Your task to perform on an android device: Go to display settings Image 0: 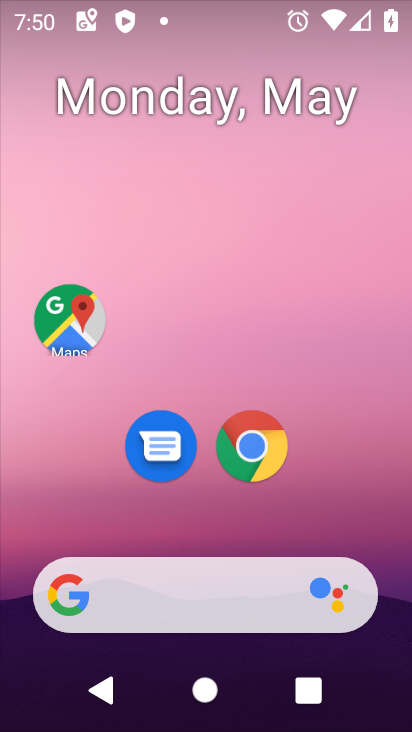
Step 0: drag from (333, 512) to (173, 104)
Your task to perform on an android device: Go to display settings Image 1: 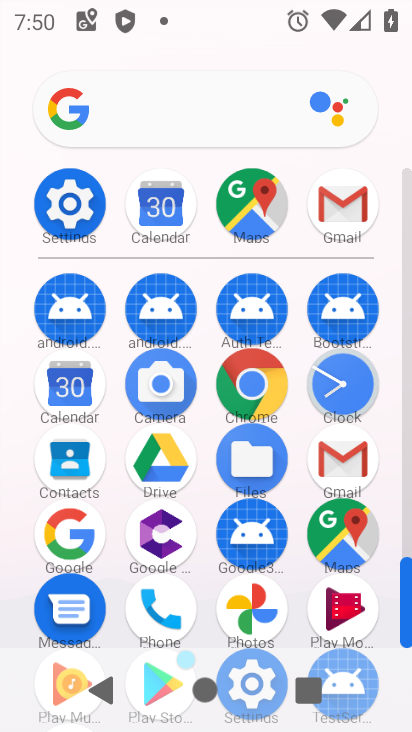
Step 1: click (67, 212)
Your task to perform on an android device: Go to display settings Image 2: 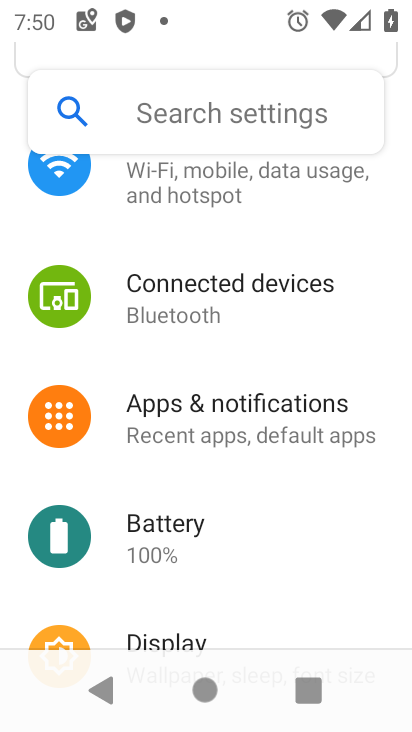
Step 2: drag from (208, 566) to (200, 350)
Your task to perform on an android device: Go to display settings Image 3: 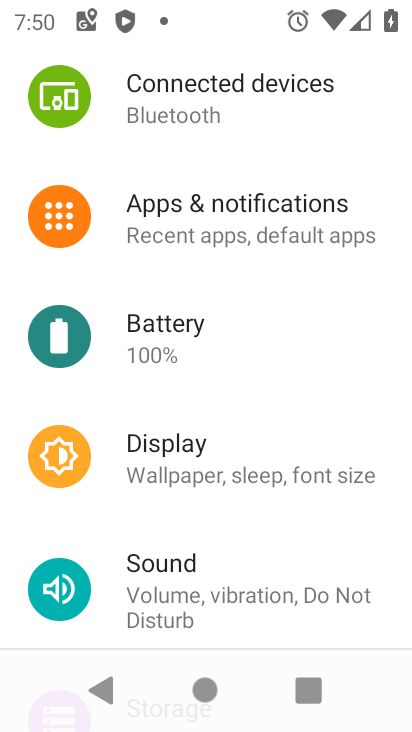
Step 3: click (172, 461)
Your task to perform on an android device: Go to display settings Image 4: 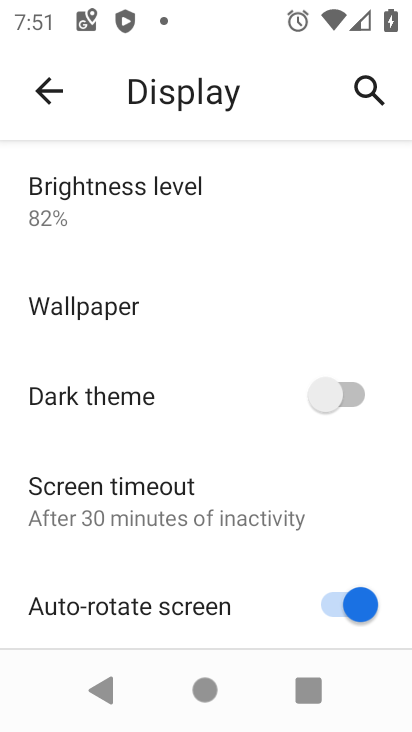
Step 4: task complete